Your task to perform on an android device: change the upload size in google photos Image 0: 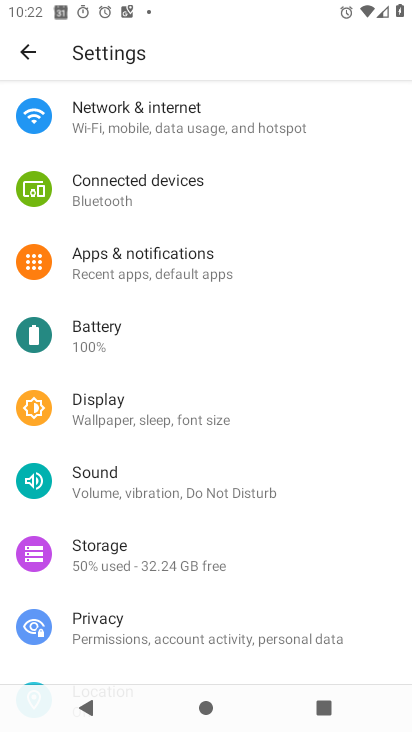
Step 0: press home button
Your task to perform on an android device: change the upload size in google photos Image 1: 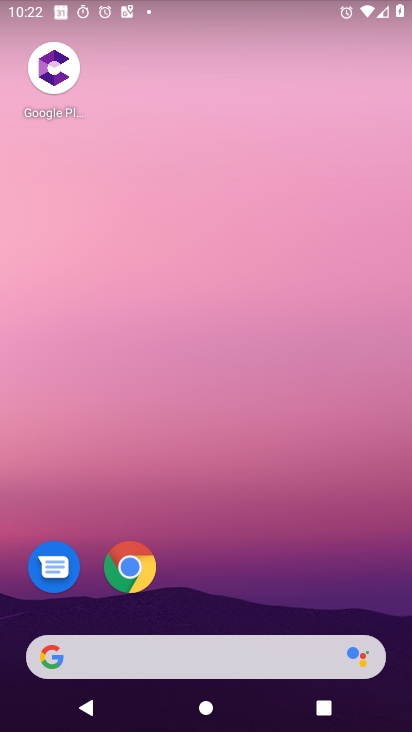
Step 1: drag from (230, 584) to (296, 58)
Your task to perform on an android device: change the upload size in google photos Image 2: 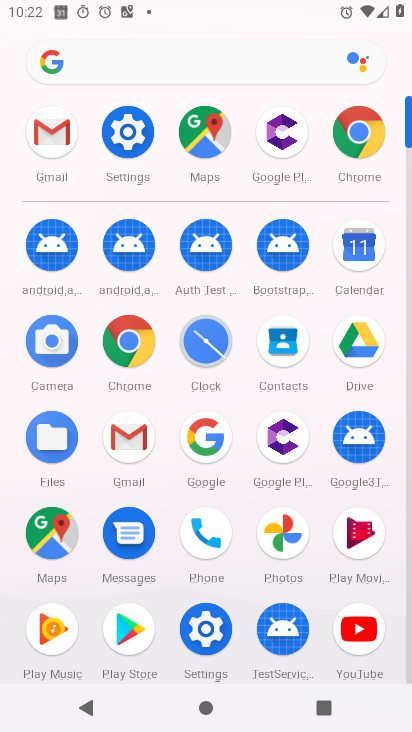
Step 2: click (292, 533)
Your task to perform on an android device: change the upload size in google photos Image 3: 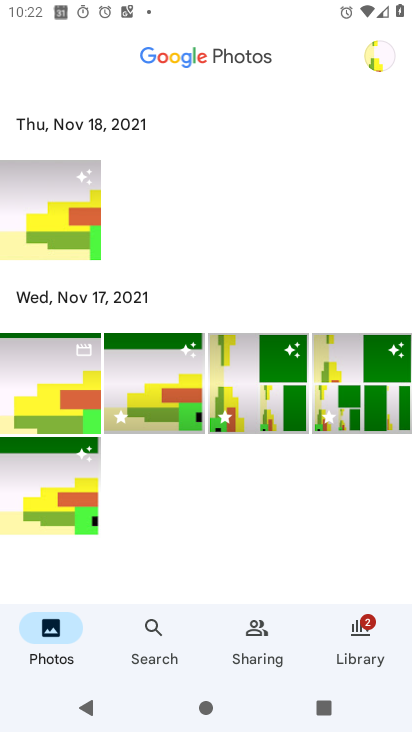
Step 3: click (384, 52)
Your task to perform on an android device: change the upload size in google photos Image 4: 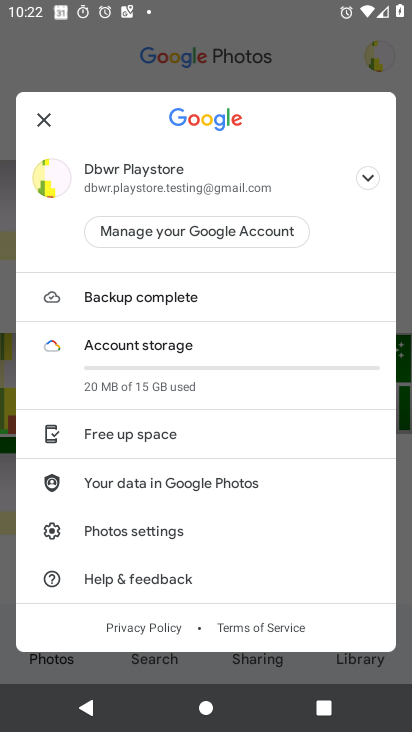
Step 4: click (155, 537)
Your task to perform on an android device: change the upload size in google photos Image 5: 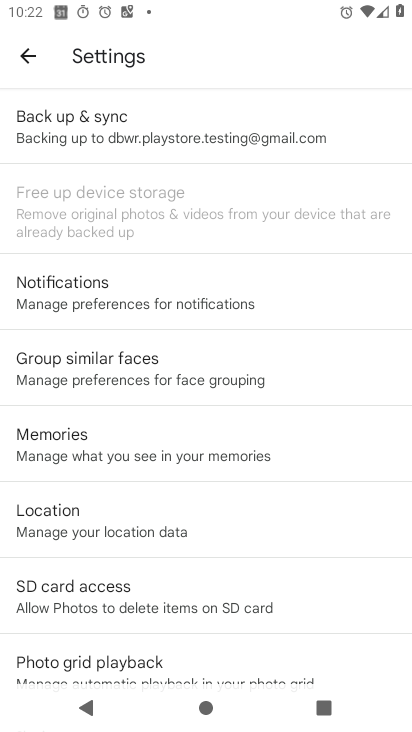
Step 5: click (154, 135)
Your task to perform on an android device: change the upload size in google photos Image 6: 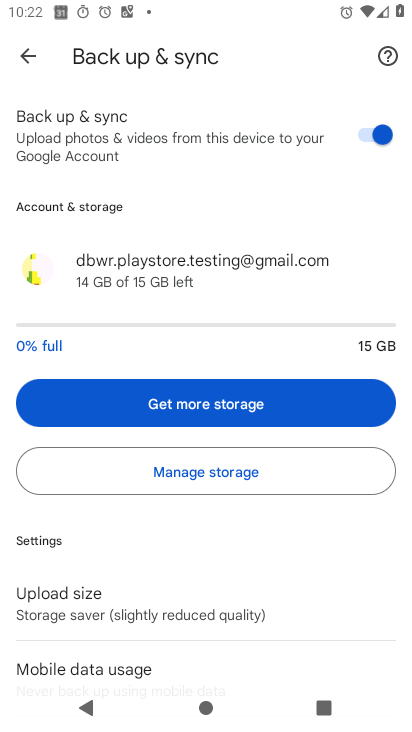
Step 6: drag from (174, 574) to (240, 193)
Your task to perform on an android device: change the upload size in google photos Image 7: 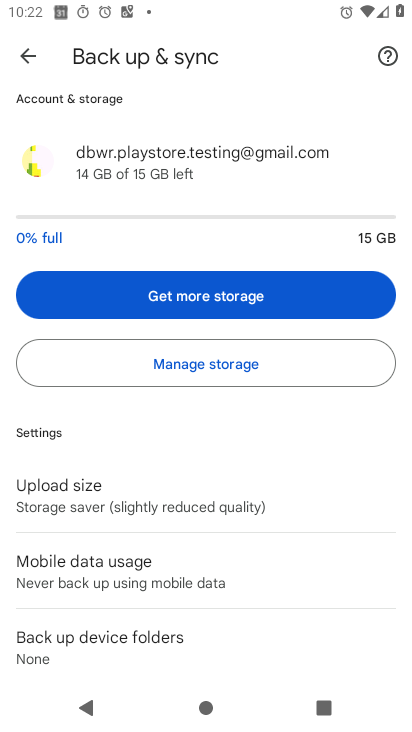
Step 7: click (83, 495)
Your task to perform on an android device: change the upload size in google photos Image 8: 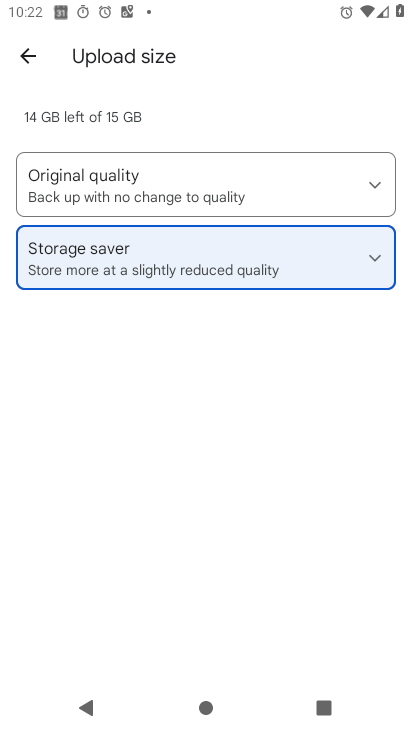
Step 8: click (140, 181)
Your task to perform on an android device: change the upload size in google photos Image 9: 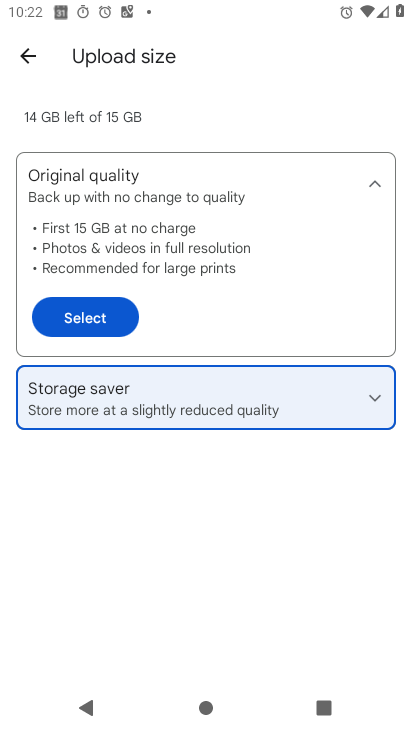
Step 9: click (84, 326)
Your task to perform on an android device: change the upload size in google photos Image 10: 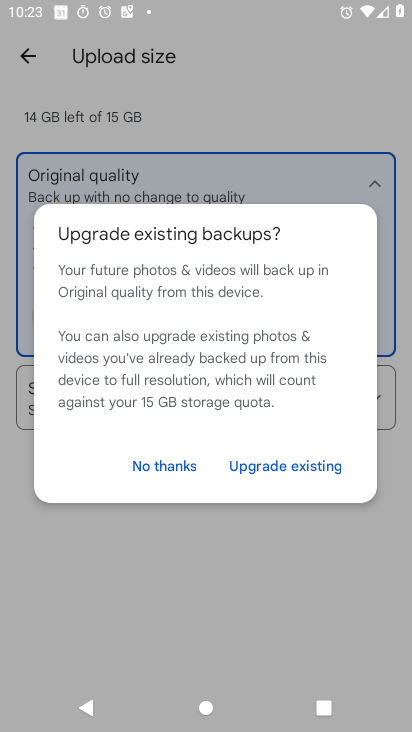
Step 10: click (152, 462)
Your task to perform on an android device: change the upload size in google photos Image 11: 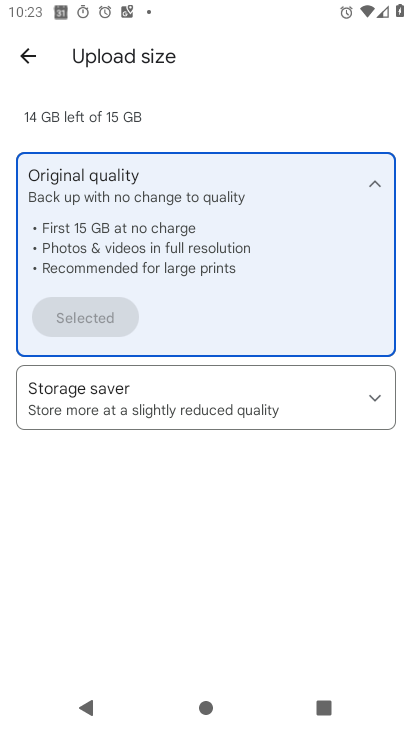
Step 11: task complete